Your task to perform on an android device: Open calendar and show me the first week of next month Image 0: 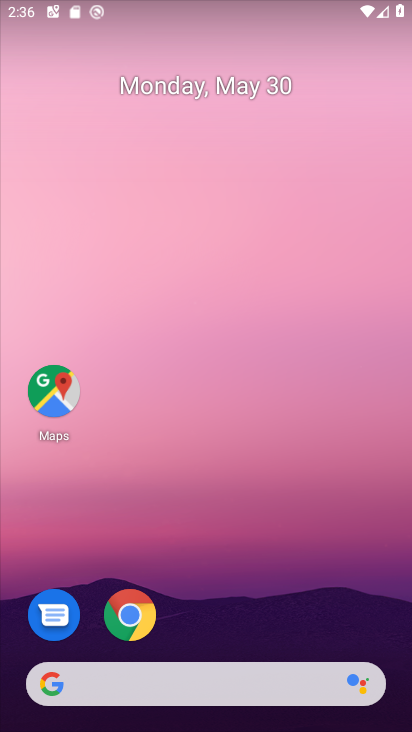
Step 0: drag from (246, 575) to (216, 42)
Your task to perform on an android device: Open calendar and show me the first week of next month Image 1: 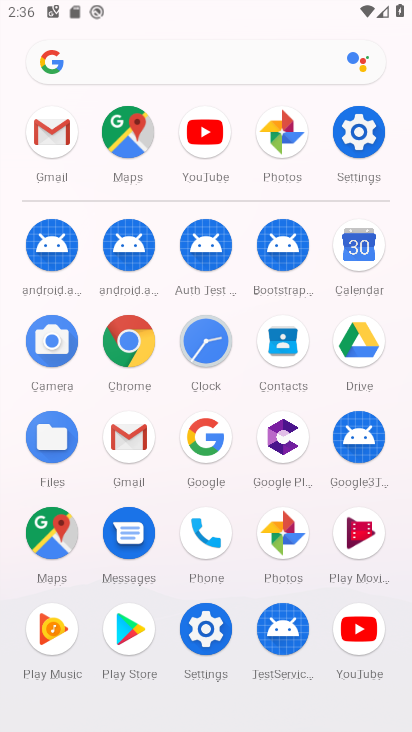
Step 1: click (357, 240)
Your task to perform on an android device: Open calendar and show me the first week of next month Image 2: 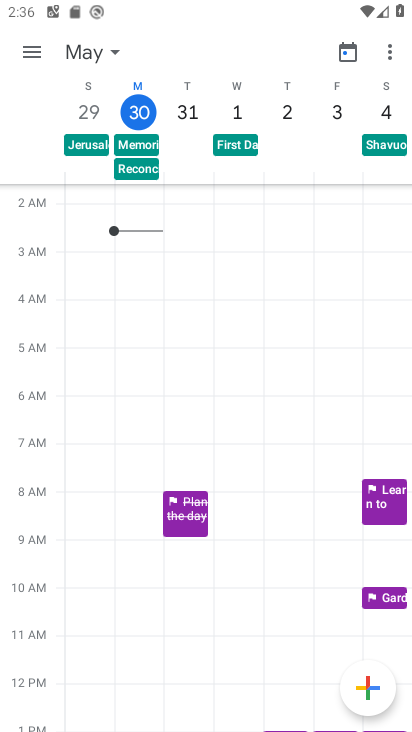
Step 2: task complete